Your task to perform on an android device: Go to location settings Image 0: 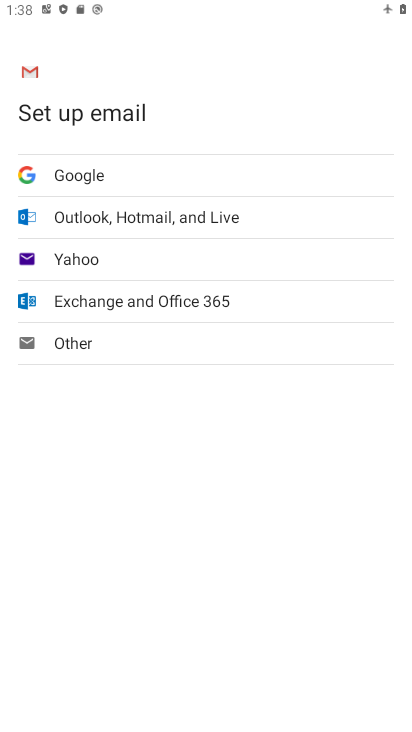
Step 0: press home button
Your task to perform on an android device: Go to location settings Image 1: 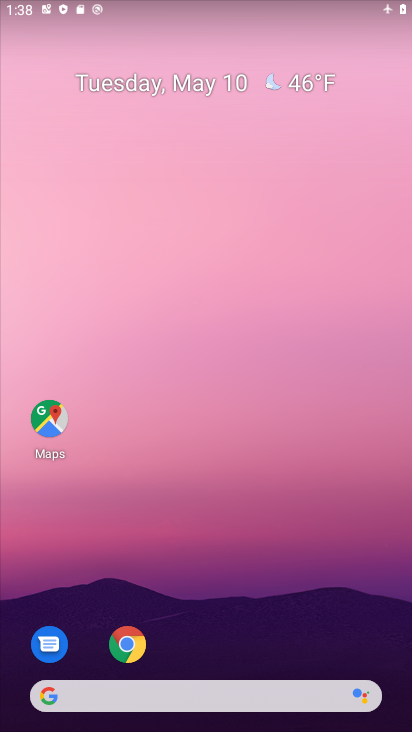
Step 1: drag from (221, 594) to (260, 276)
Your task to perform on an android device: Go to location settings Image 2: 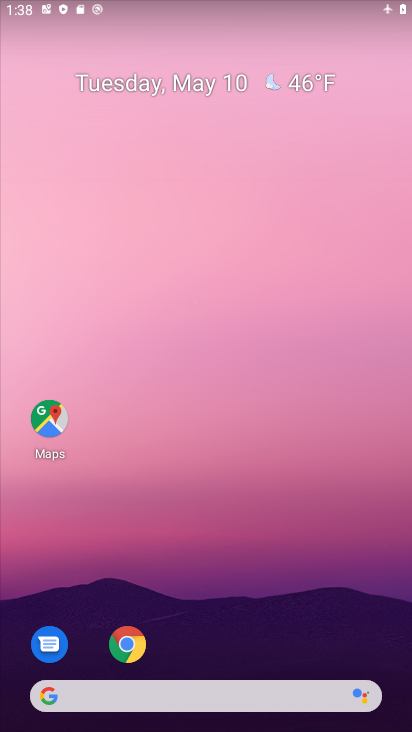
Step 2: drag from (288, 642) to (308, 256)
Your task to perform on an android device: Go to location settings Image 3: 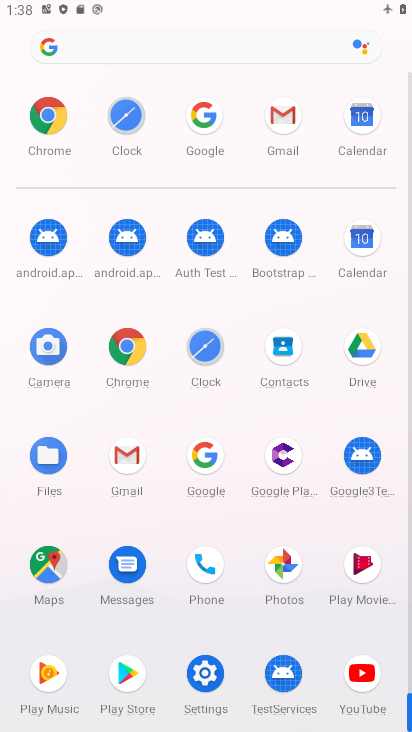
Step 3: click (214, 691)
Your task to perform on an android device: Go to location settings Image 4: 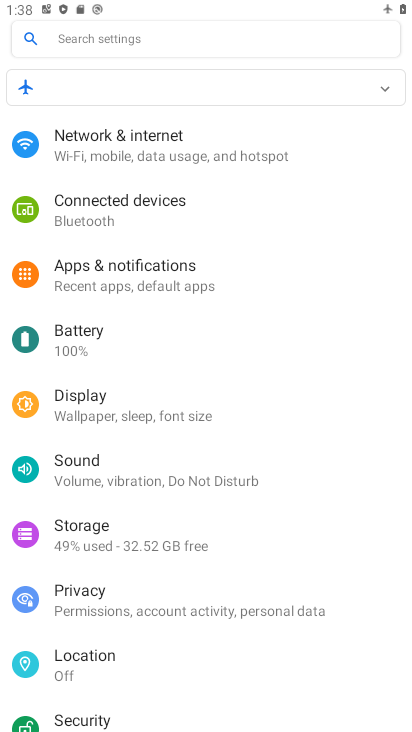
Step 4: click (134, 673)
Your task to perform on an android device: Go to location settings Image 5: 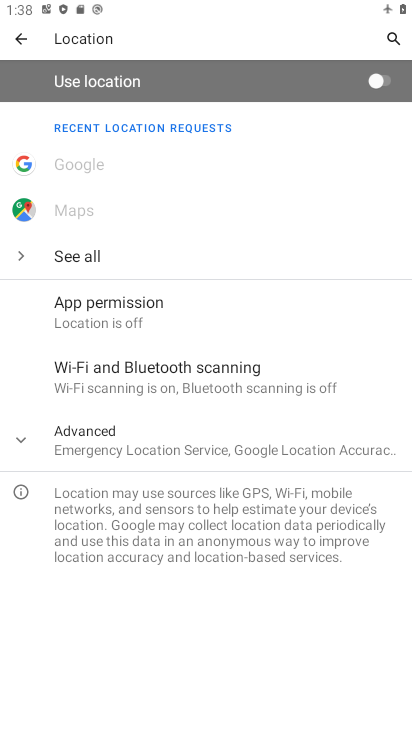
Step 5: task complete